Your task to perform on an android device: toggle notification dots Image 0: 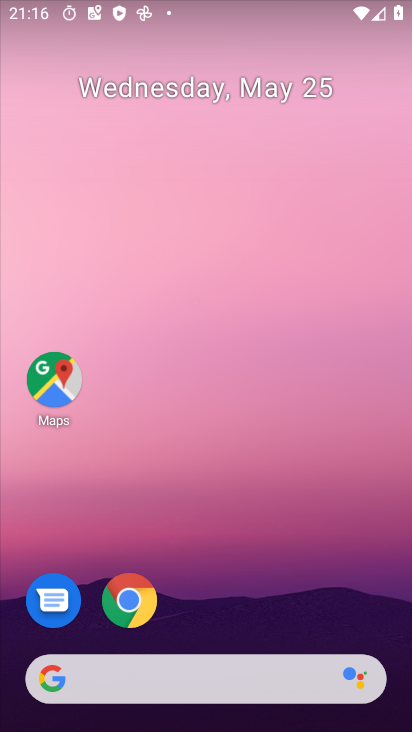
Step 0: drag from (301, 605) to (309, 143)
Your task to perform on an android device: toggle notification dots Image 1: 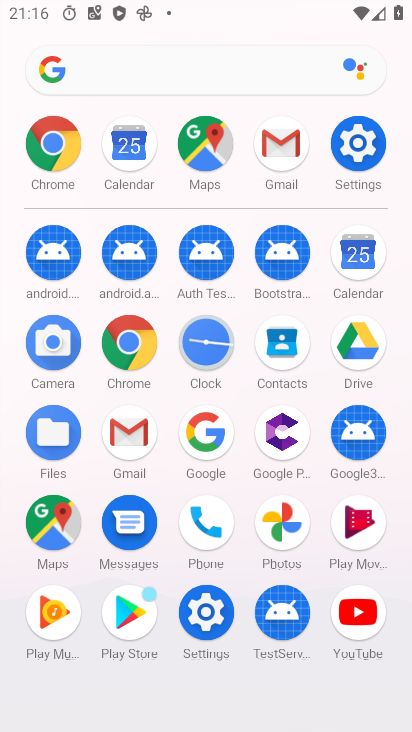
Step 1: click (364, 150)
Your task to perform on an android device: toggle notification dots Image 2: 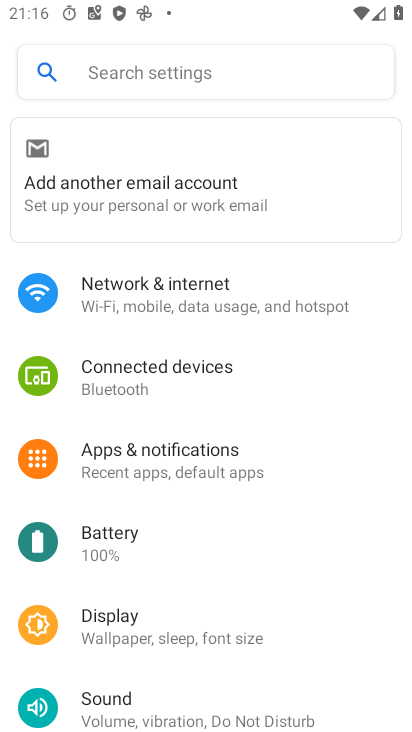
Step 2: drag from (318, 607) to (292, 264)
Your task to perform on an android device: toggle notification dots Image 3: 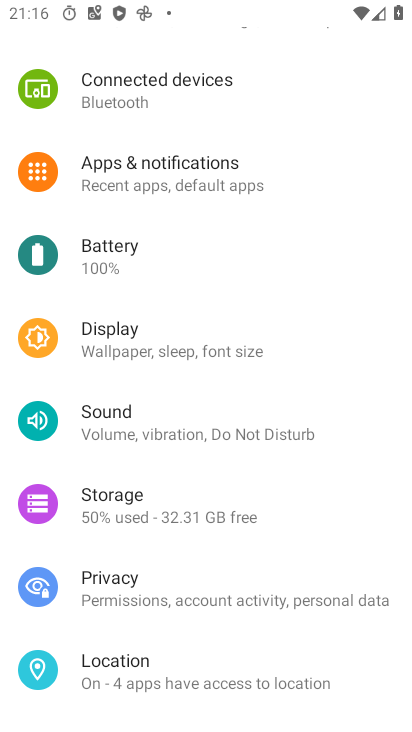
Step 3: drag from (283, 632) to (299, 339)
Your task to perform on an android device: toggle notification dots Image 4: 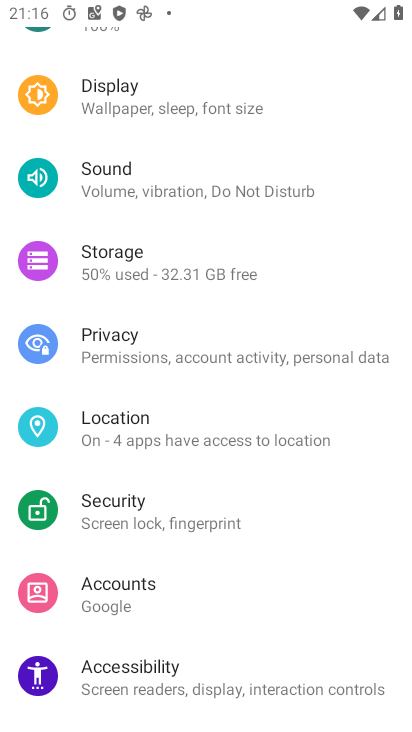
Step 4: drag from (292, 137) to (203, 597)
Your task to perform on an android device: toggle notification dots Image 5: 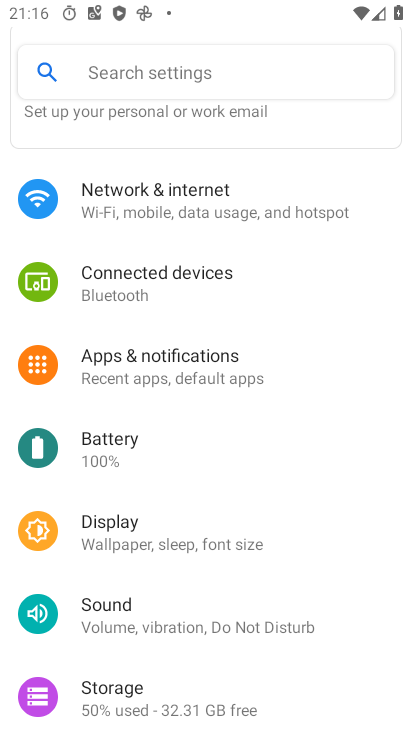
Step 5: click (197, 360)
Your task to perform on an android device: toggle notification dots Image 6: 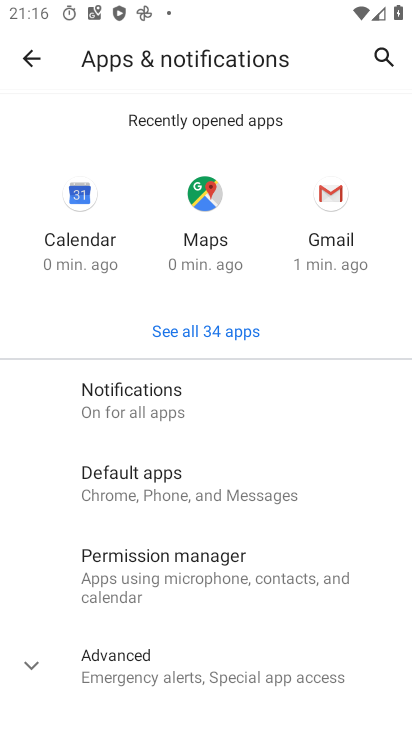
Step 6: click (198, 417)
Your task to perform on an android device: toggle notification dots Image 7: 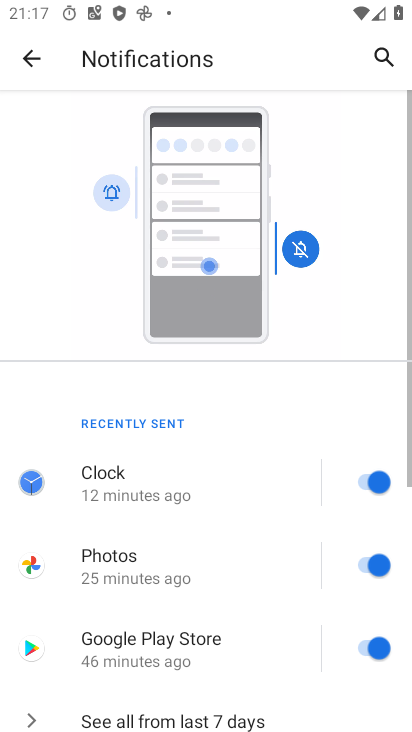
Step 7: drag from (293, 614) to (275, 284)
Your task to perform on an android device: toggle notification dots Image 8: 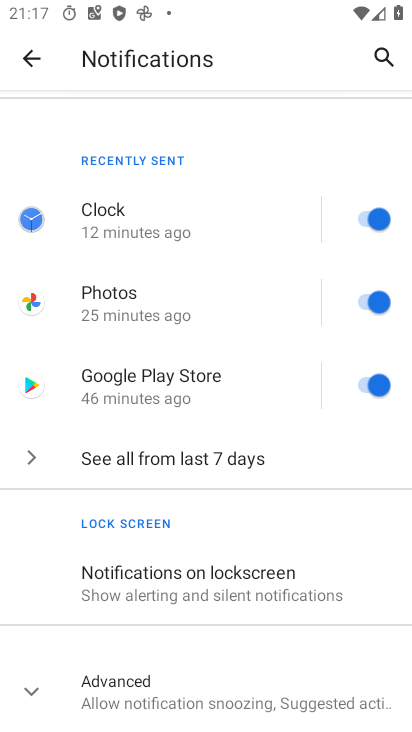
Step 8: drag from (254, 627) to (249, 373)
Your task to perform on an android device: toggle notification dots Image 9: 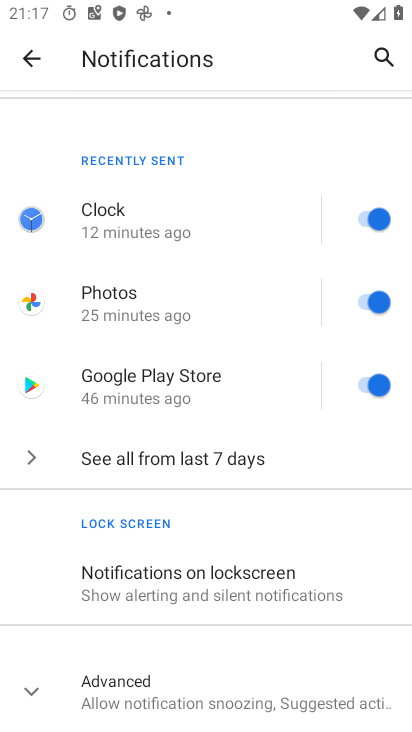
Step 9: click (204, 690)
Your task to perform on an android device: toggle notification dots Image 10: 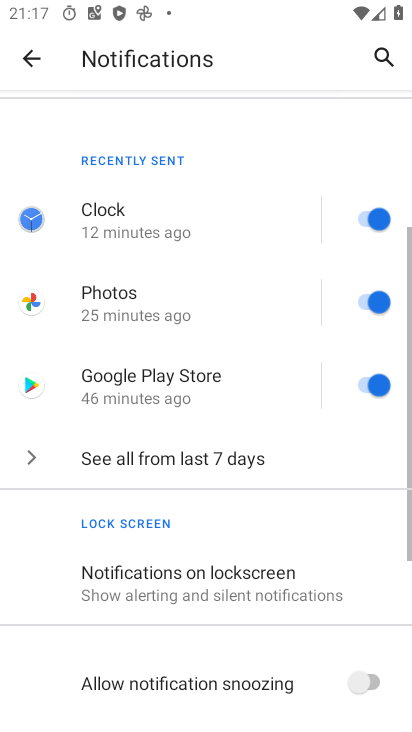
Step 10: drag from (229, 699) to (212, 429)
Your task to perform on an android device: toggle notification dots Image 11: 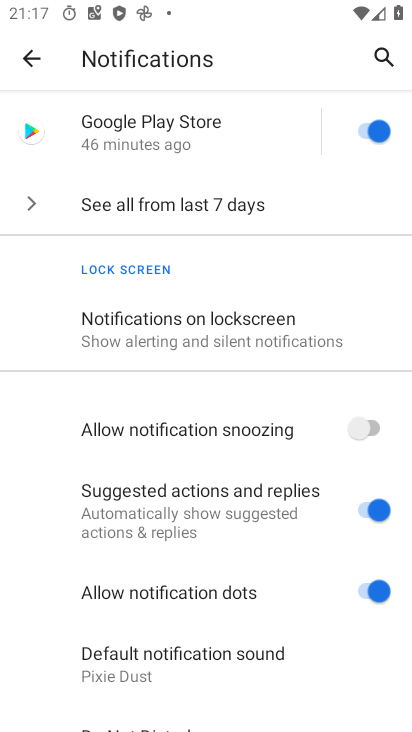
Step 11: click (368, 592)
Your task to perform on an android device: toggle notification dots Image 12: 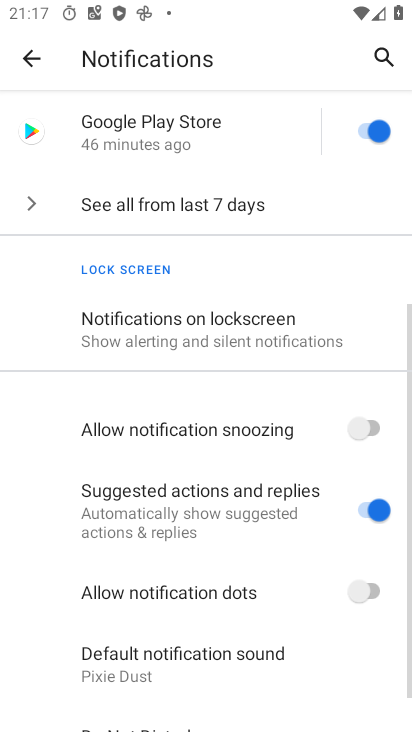
Step 12: task complete